Your task to perform on an android device: toggle pop-ups in chrome Image 0: 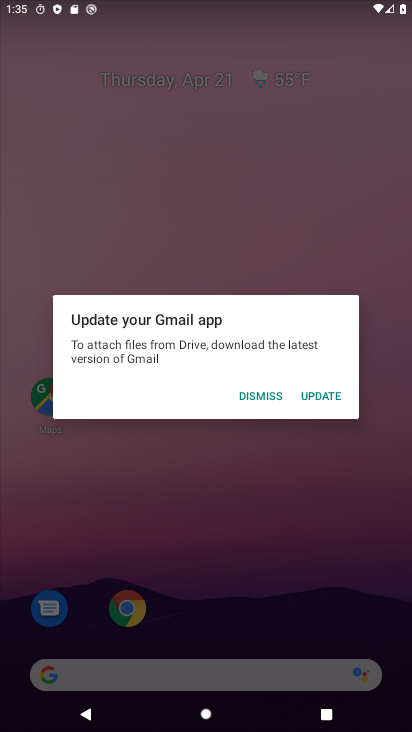
Step 0: press home button
Your task to perform on an android device: toggle pop-ups in chrome Image 1: 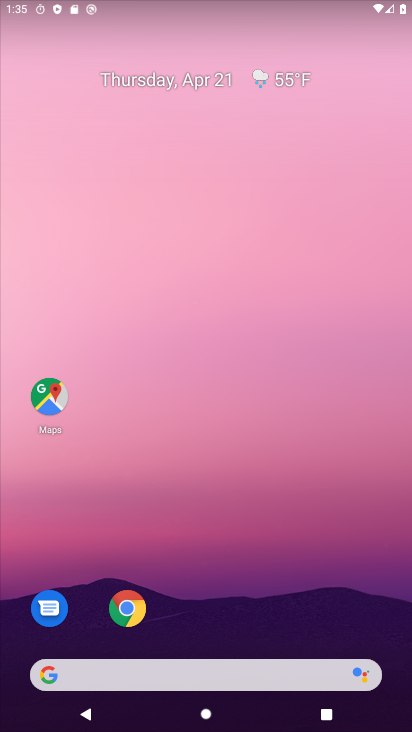
Step 1: drag from (252, 493) to (246, 143)
Your task to perform on an android device: toggle pop-ups in chrome Image 2: 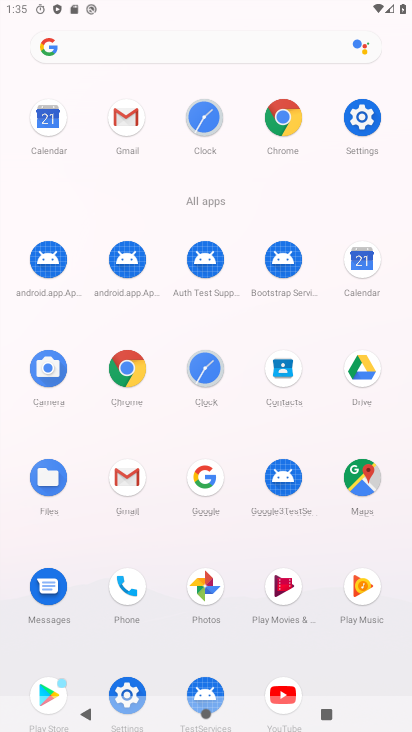
Step 2: click (288, 120)
Your task to perform on an android device: toggle pop-ups in chrome Image 3: 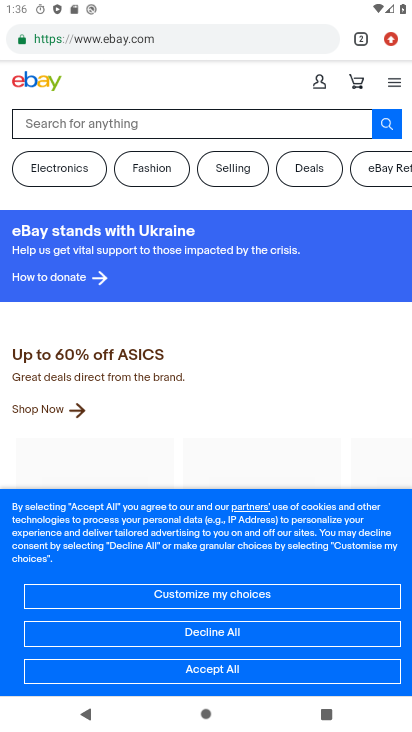
Step 3: drag from (392, 38) to (260, 522)
Your task to perform on an android device: toggle pop-ups in chrome Image 4: 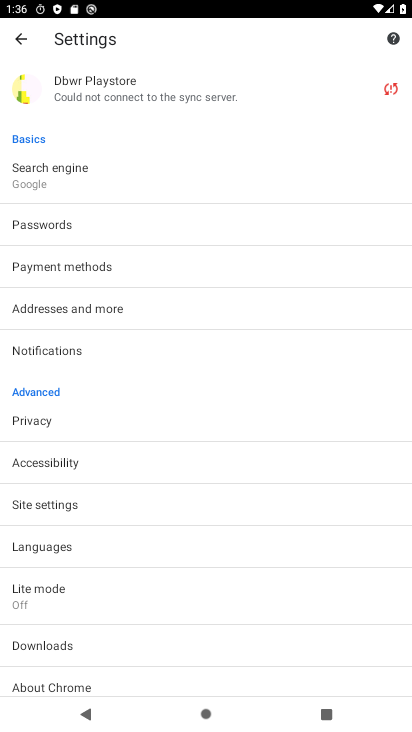
Step 4: click (43, 501)
Your task to perform on an android device: toggle pop-ups in chrome Image 5: 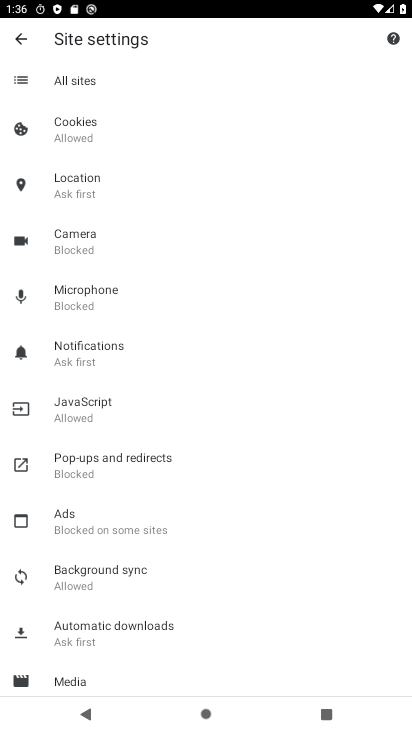
Step 5: click (74, 469)
Your task to perform on an android device: toggle pop-ups in chrome Image 6: 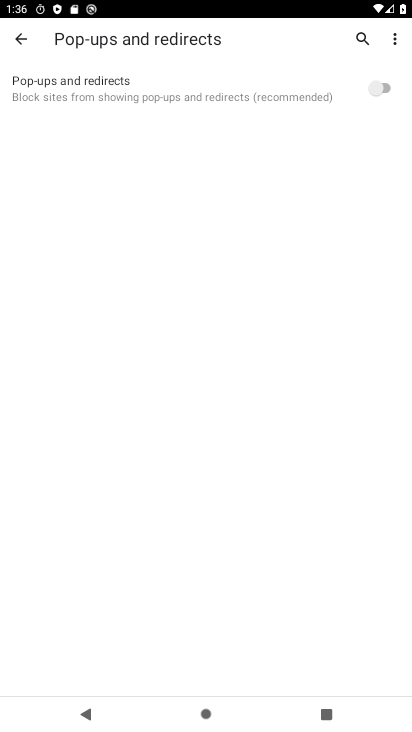
Step 6: click (376, 90)
Your task to perform on an android device: toggle pop-ups in chrome Image 7: 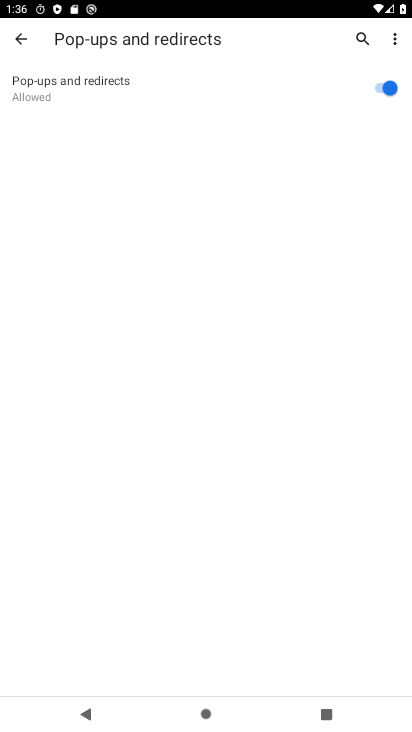
Step 7: task complete